Your task to perform on an android device: find photos in the google photos app Image 0: 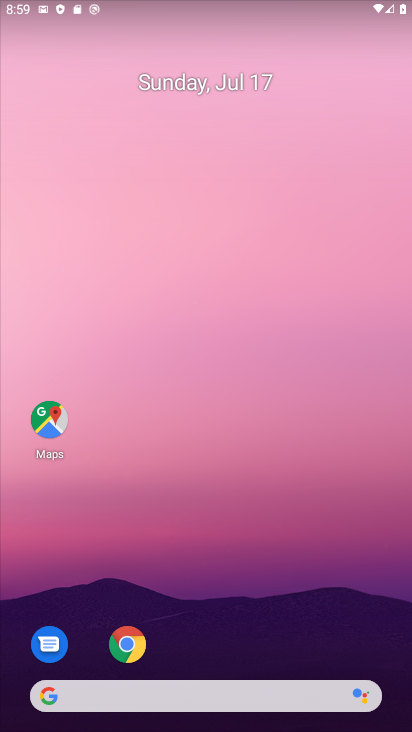
Step 0: drag from (198, 667) to (128, 122)
Your task to perform on an android device: find photos in the google photos app Image 1: 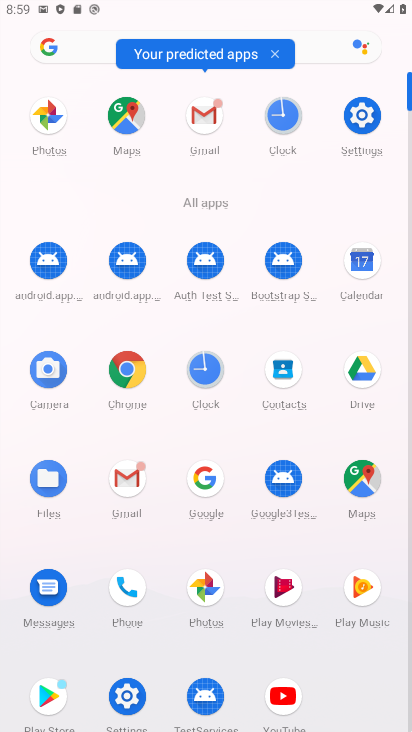
Step 1: click (199, 587)
Your task to perform on an android device: find photos in the google photos app Image 2: 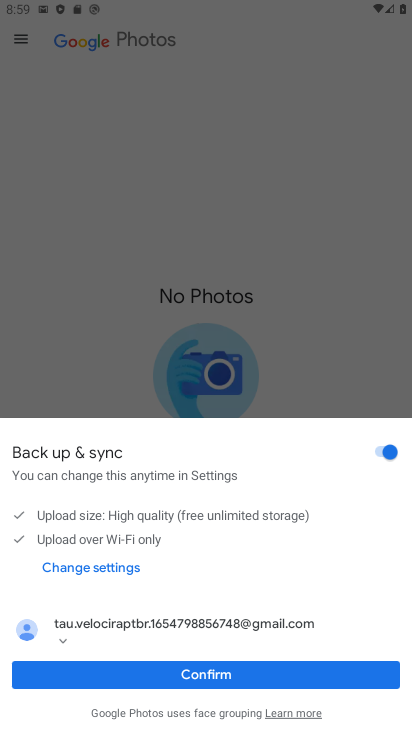
Step 2: click (213, 675)
Your task to perform on an android device: find photos in the google photos app Image 3: 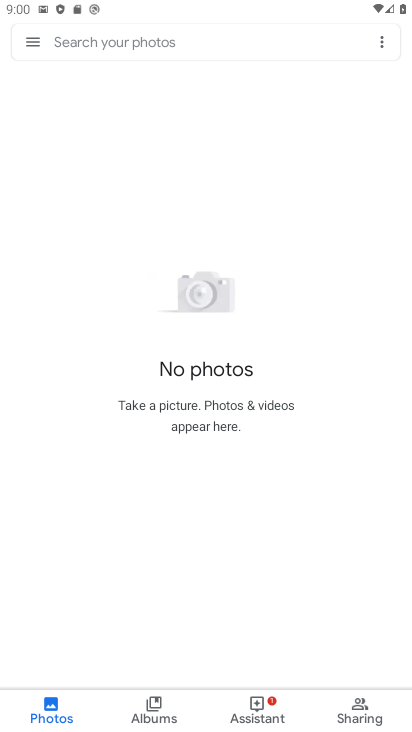
Step 3: task complete